Your task to perform on an android device: Clear the shopping cart on ebay. Search for lg ultragear on ebay, select the first entry, and add it to the cart. Image 0: 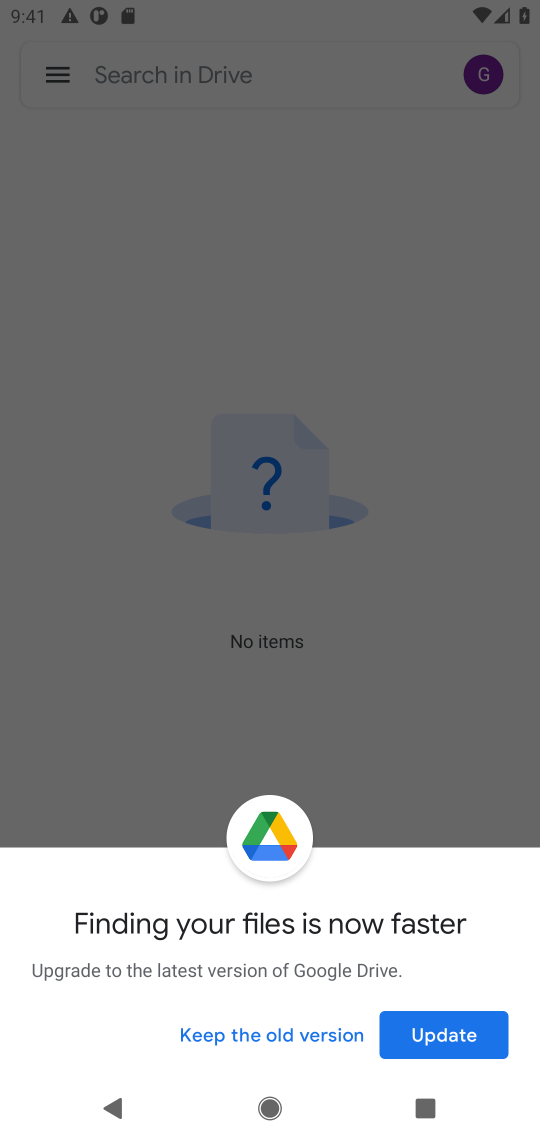
Step 0: press home button
Your task to perform on an android device: Clear the shopping cart on ebay. Search for lg ultragear on ebay, select the first entry, and add it to the cart. Image 1: 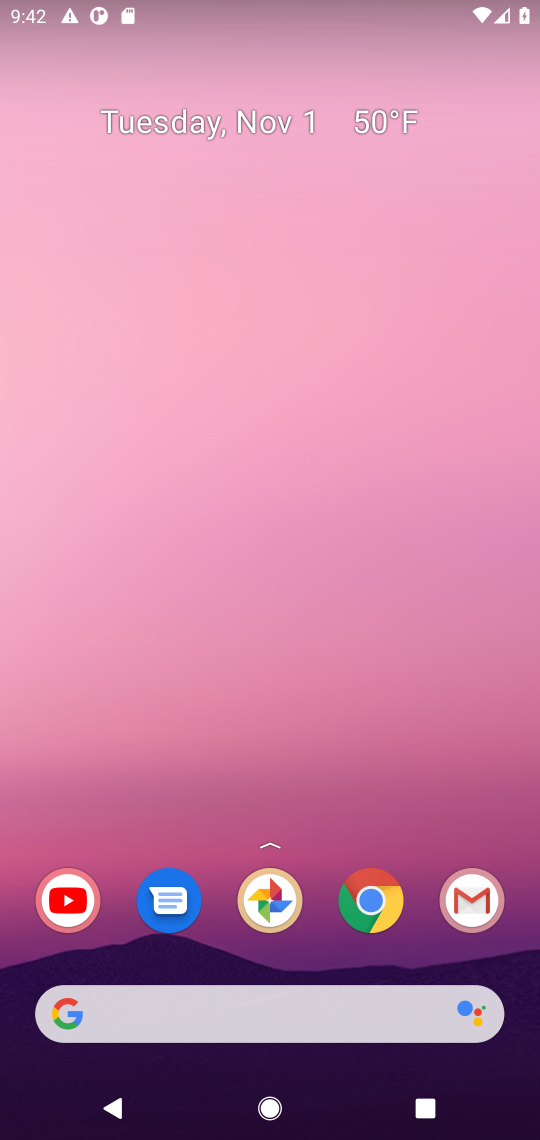
Step 1: click (331, 901)
Your task to perform on an android device: Clear the shopping cart on ebay. Search for lg ultragear on ebay, select the first entry, and add it to the cart. Image 2: 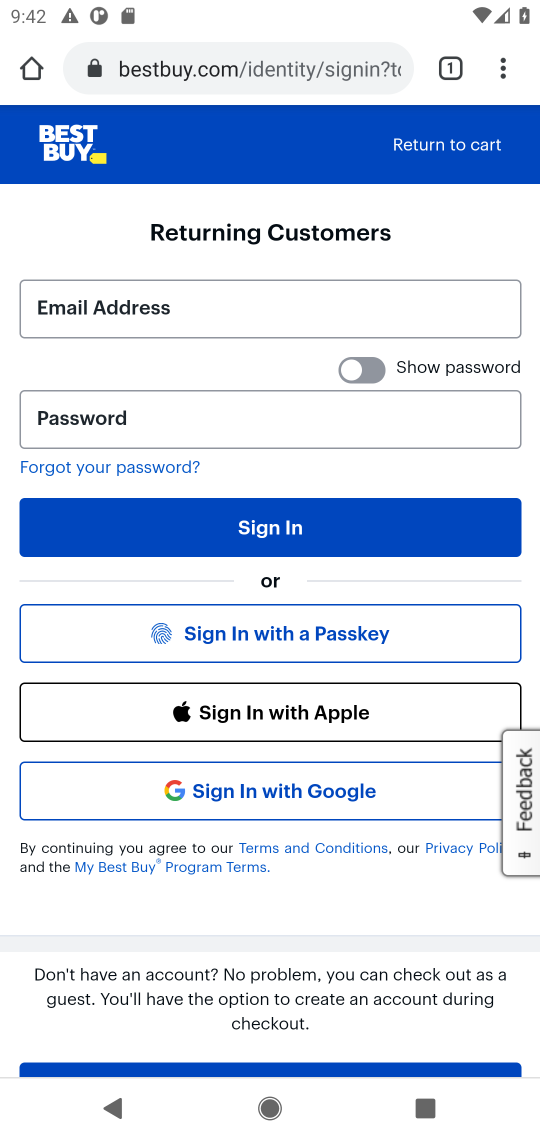
Step 2: click (219, 54)
Your task to perform on an android device: Clear the shopping cart on ebay. Search for lg ultragear on ebay, select the first entry, and add it to the cart. Image 3: 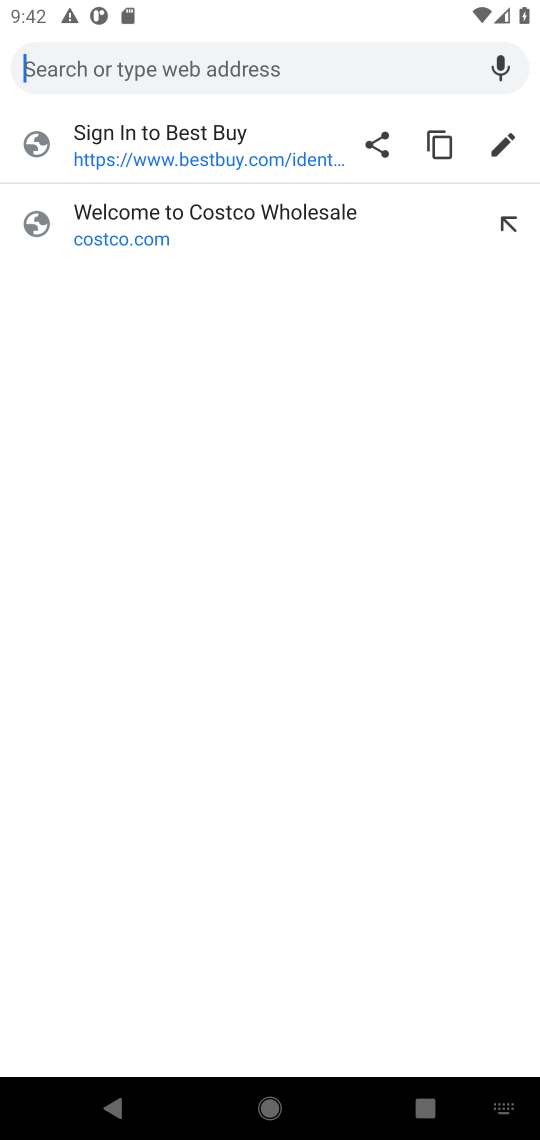
Step 3: type "ebay"
Your task to perform on an android device: Clear the shopping cart on ebay. Search for lg ultragear on ebay, select the first entry, and add it to the cart. Image 4: 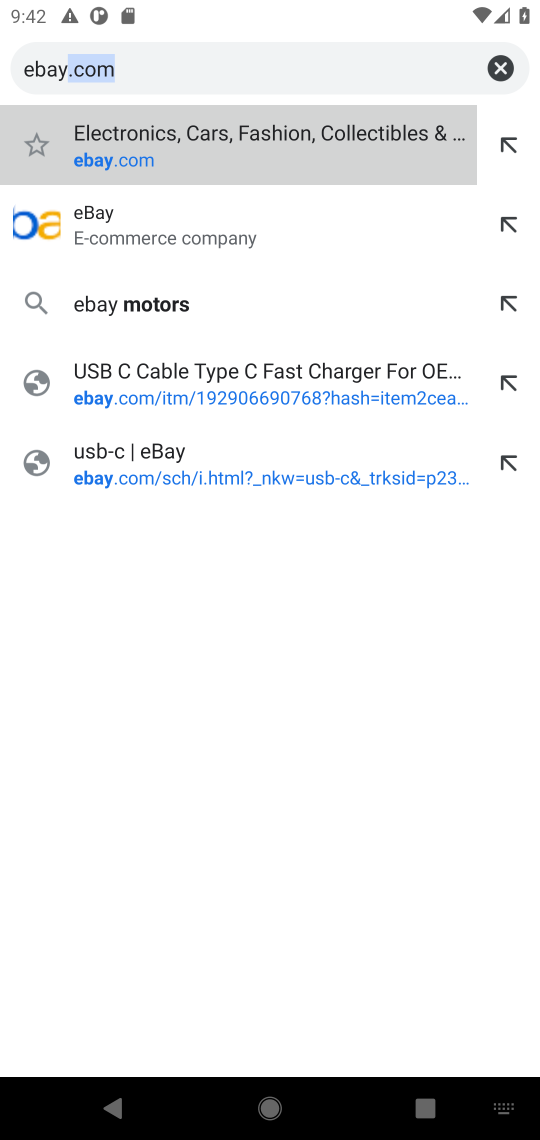
Step 4: click (247, 233)
Your task to perform on an android device: Clear the shopping cart on ebay. Search for lg ultragear on ebay, select the first entry, and add it to the cart. Image 5: 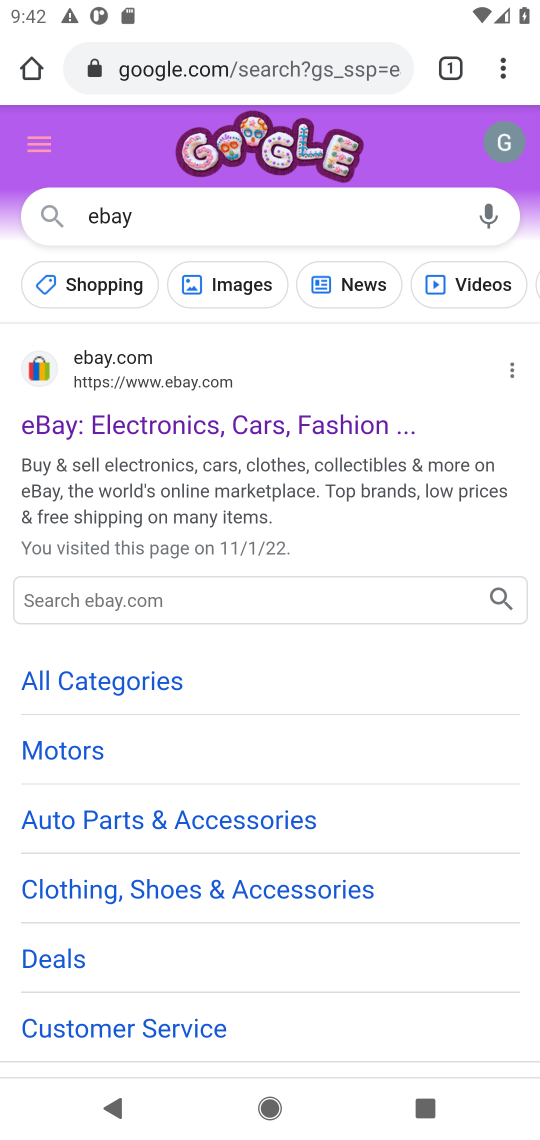
Step 5: click (105, 428)
Your task to perform on an android device: Clear the shopping cart on ebay. Search for lg ultragear on ebay, select the first entry, and add it to the cart. Image 6: 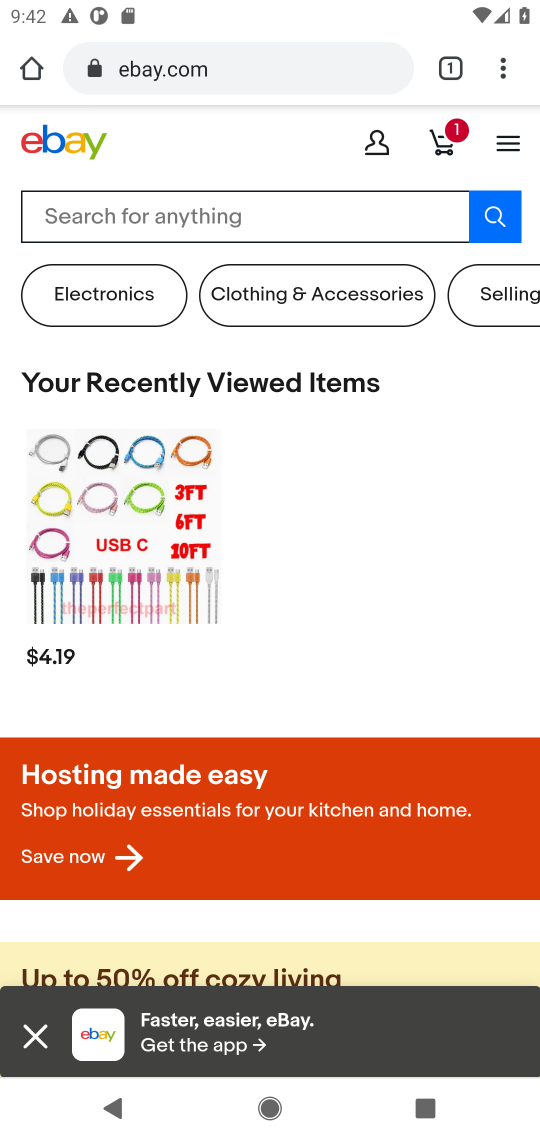
Step 6: click (460, 164)
Your task to perform on an android device: Clear the shopping cart on ebay. Search for lg ultragear on ebay, select the first entry, and add it to the cart. Image 7: 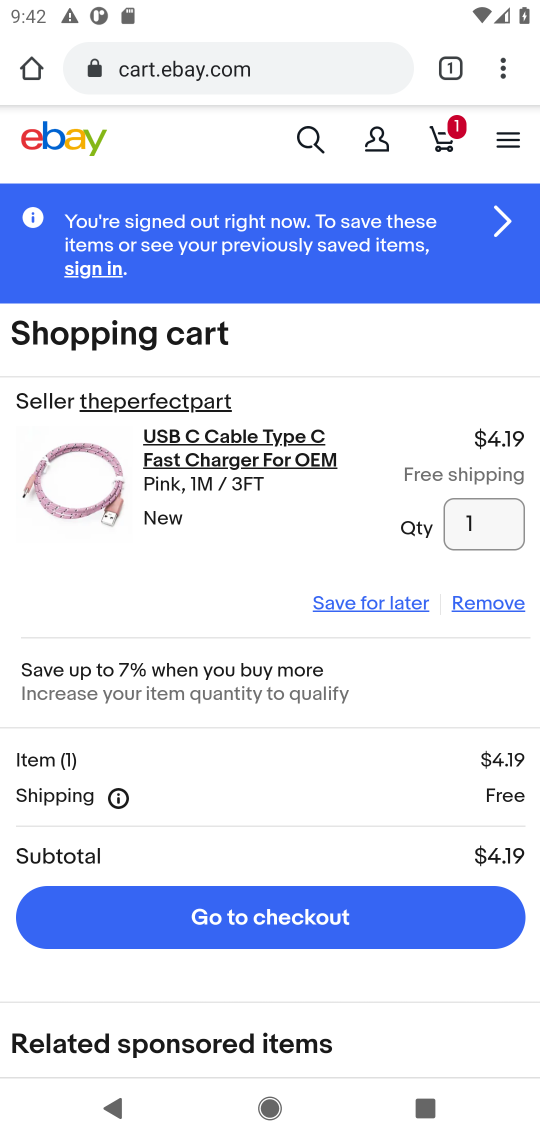
Step 7: click (501, 604)
Your task to perform on an android device: Clear the shopping cart on ebay. Search for lg ultragear on ebay, select the first entry, and add it to the cart. Image 8: 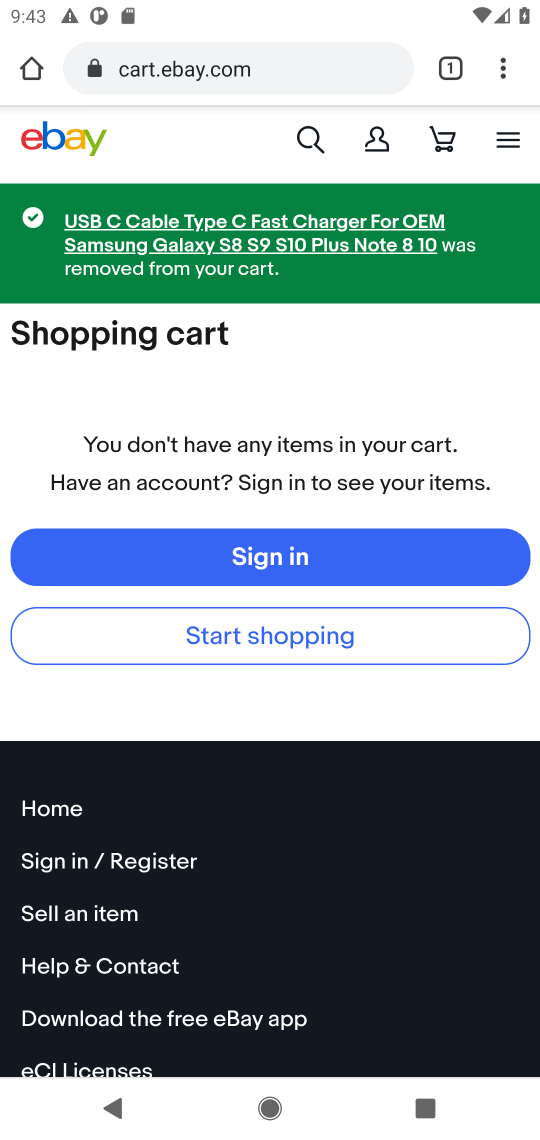
Step 8: click (316, 147)
Your task to perform on an android device: Clear the shopping cart on ebay. Search for lg ultragear on ebay, select the first entry, and add it to the cart. Image 9: 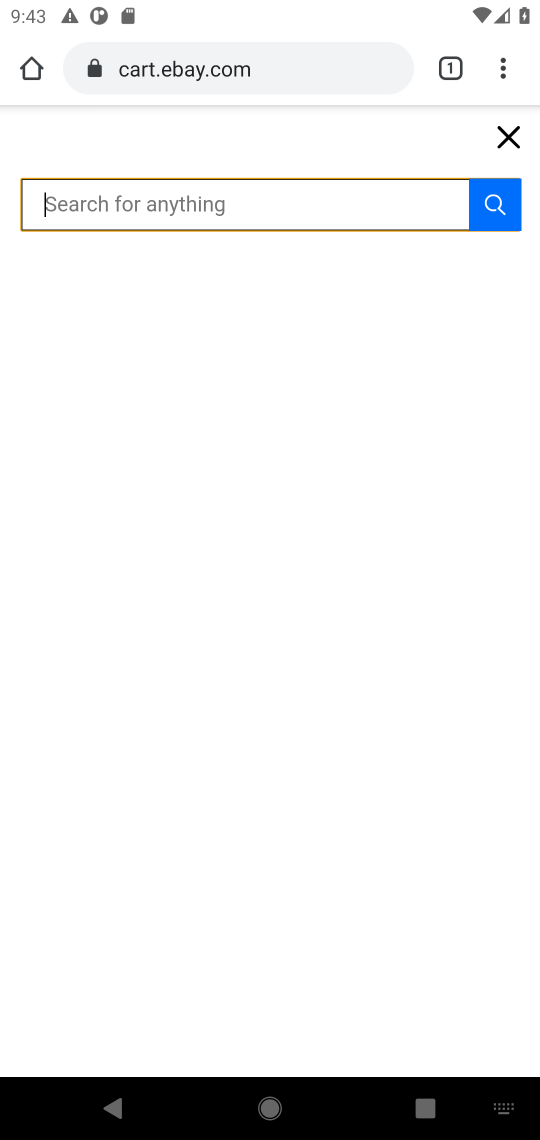
Step 9: type "lg ultragear"
Your task to perform on an android device: Clear the shopping cart on ebay. Search for lg ultragear on ebay, select the first entry, and add it to the cart. Image 10: 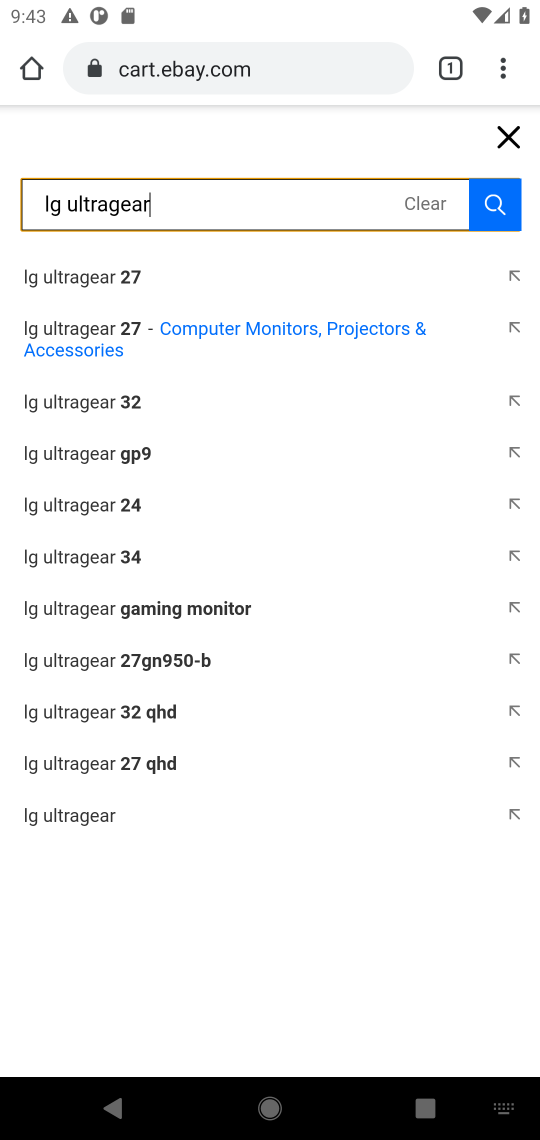
Step 10: click (479, 186)
Your task to perform on an android device: Clear the shopping cart on ebay. Search for lg ultragear on ebay, select the first entry, and add it to the cart. Image 11: 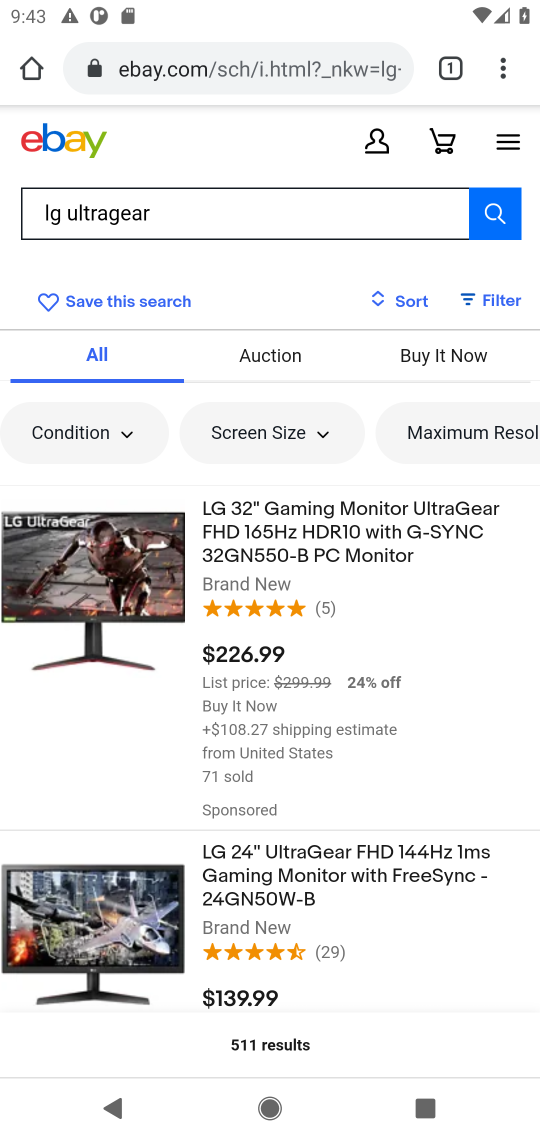
Step 11: click (309, 552)
Your task to perform on an android device: Clear the shopping cart on ebay. Search for lg ultragear on ebay, select the first entry, and add it to the cart. Image 12: 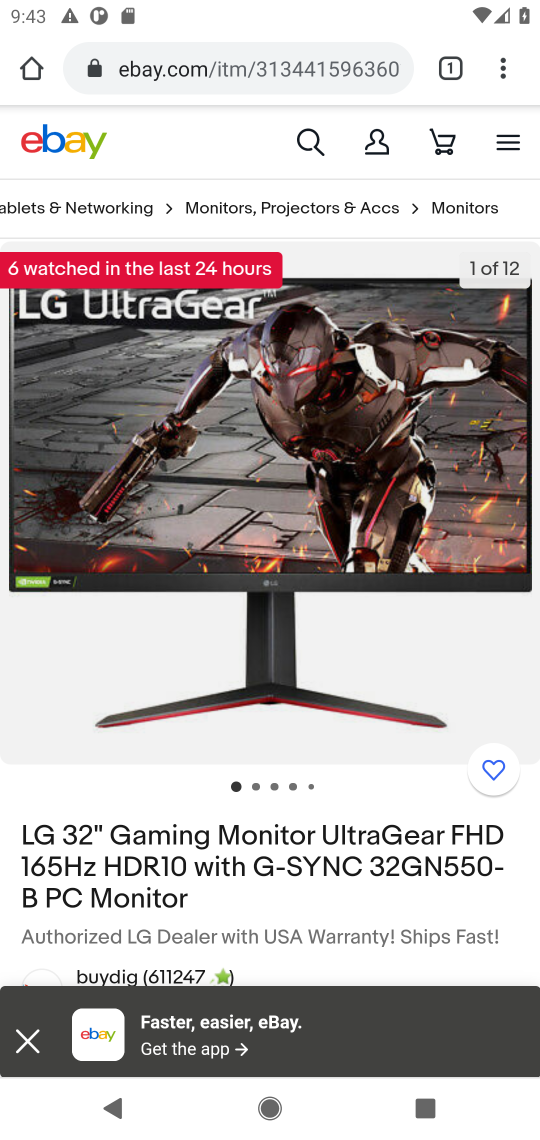
Step 12: drag from (247, 901) to (235, 467)
Your task to perform on an android device: Clear the shopping cart on ebay. Search for lg ultragear on ebay, select the first entry, and add it to the cart. Image 13: 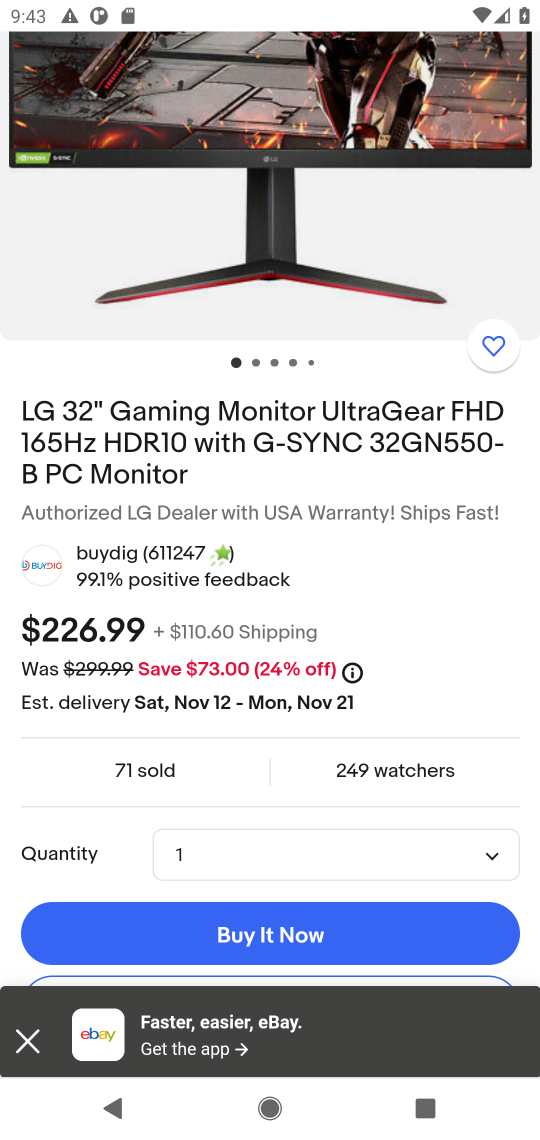
Step 13: drag from (318, 815) to (346, 533)
Your task to perform on an android device: Clear the shopping cart on ebay. Search for lg ultragear on ebay, select the first entry, and add it to the cart. Image 14: 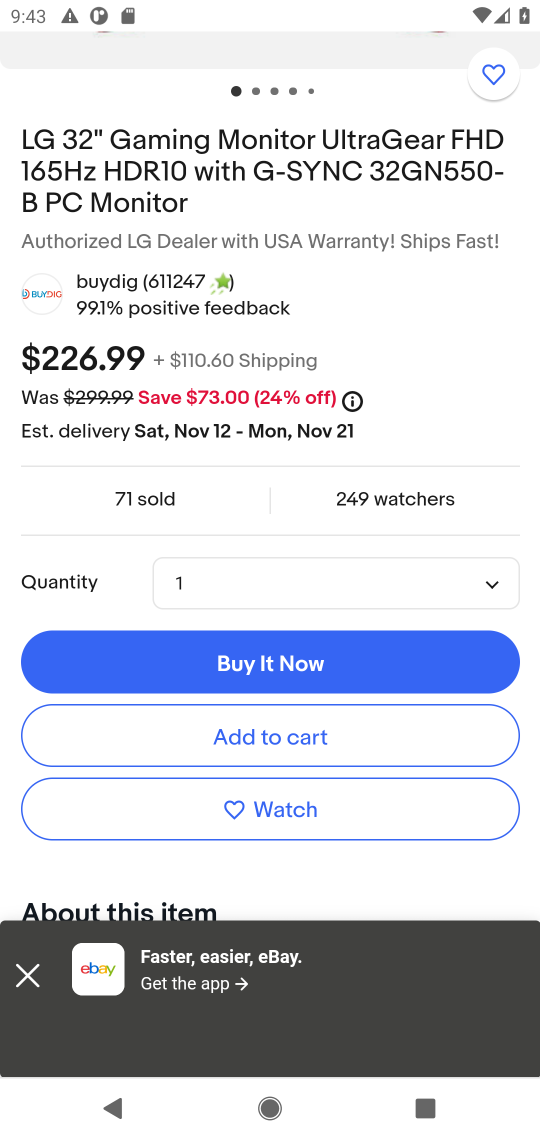
Step 14: click (295, 747)
Your task to perform on an android device: Clear the shopping cart on ebay. Search for lg ultragear on ebay, select the first entry, and add it to the cart. Image 15: 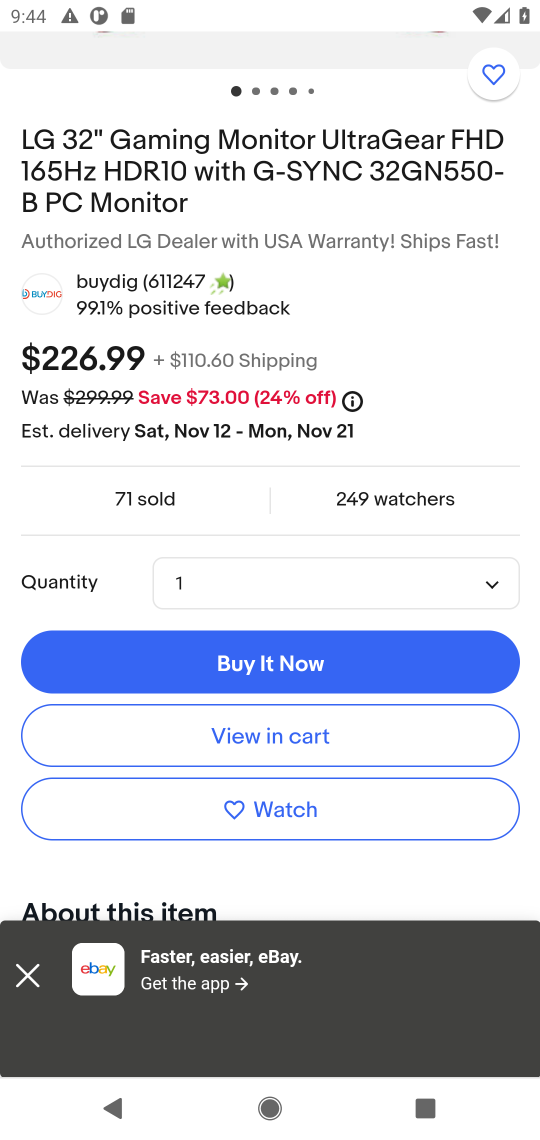
Step 15: task complete